Your task to perform on an android device: How do I get to the nearest Sprint Store? Image 0: 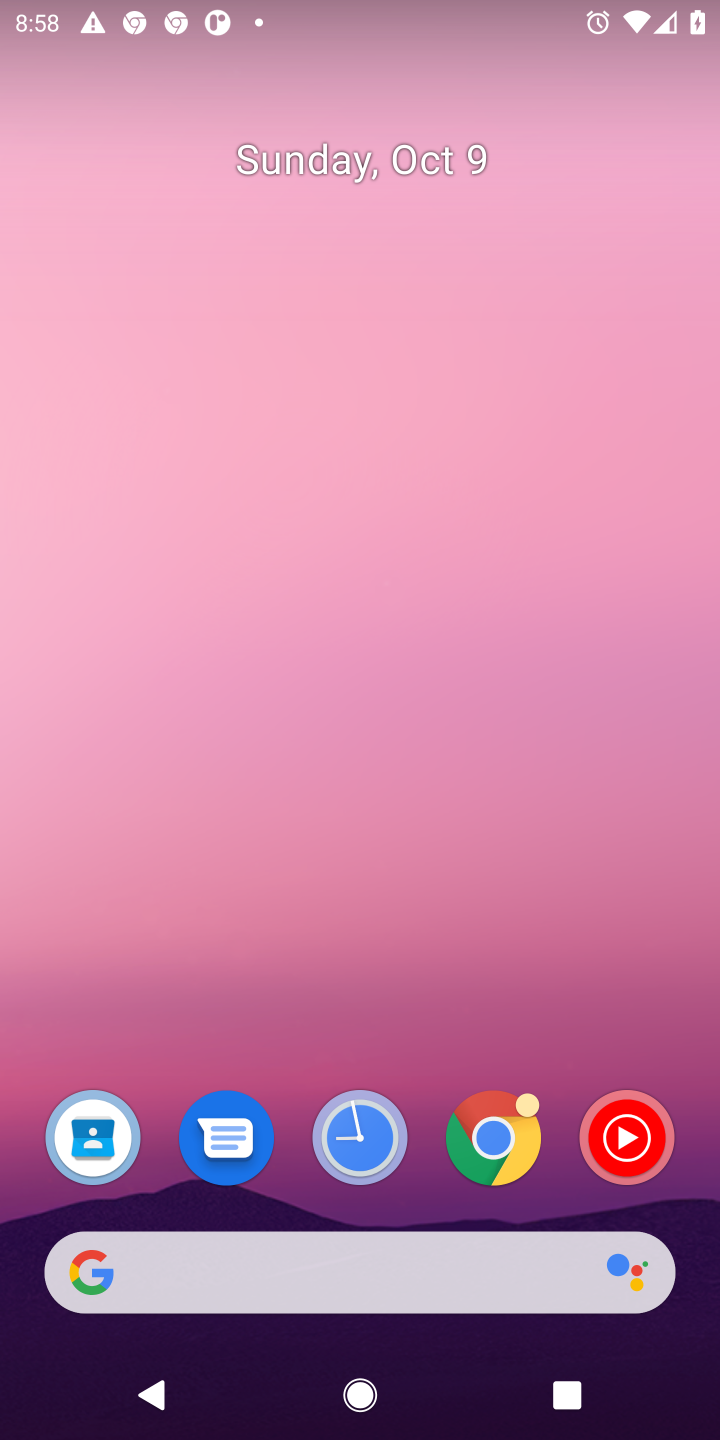
Step 0: drag from (425, 1183) to (433, 305)
Your task to perform on an android device: How do I get to the nearest Sprint Store? Image 1: 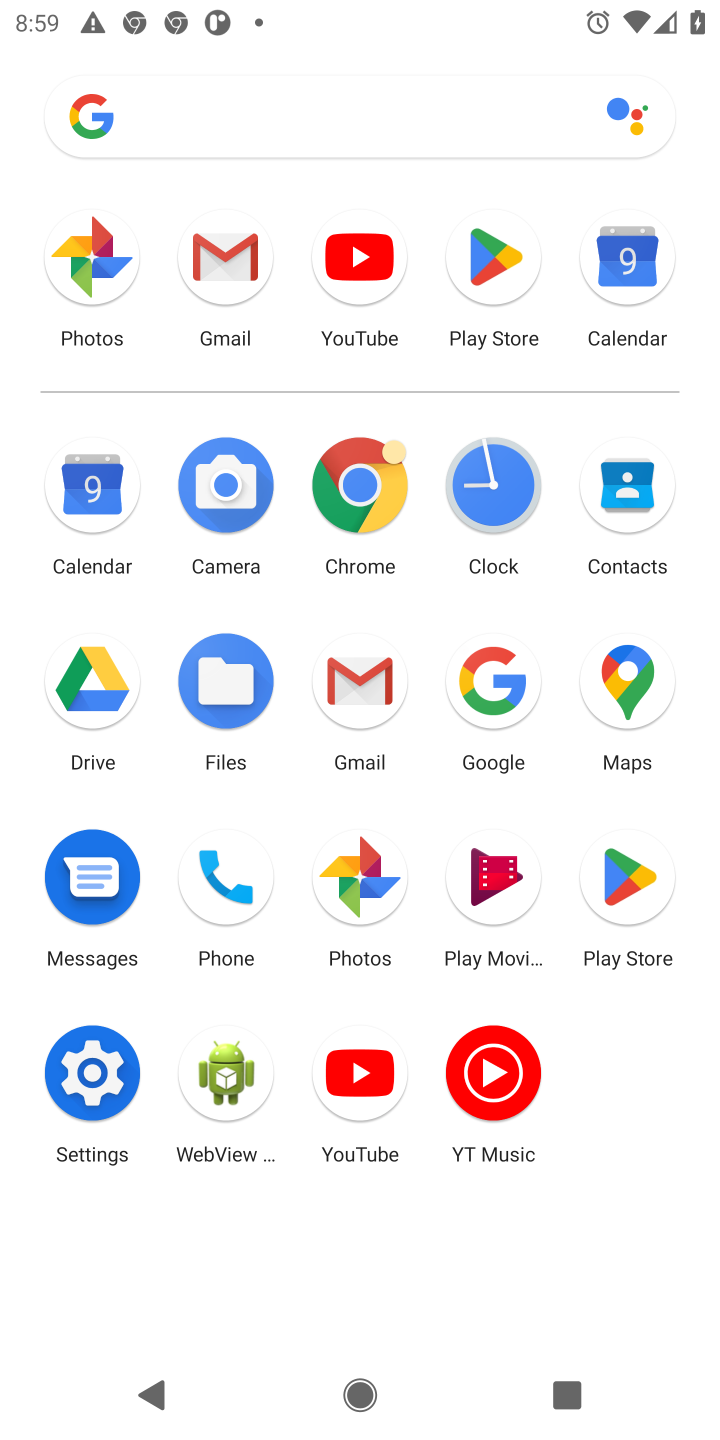
Step 1: click (484, 667)
Your task to perform on an android device: How do I get to the nearest Sprint Store? Image 2: 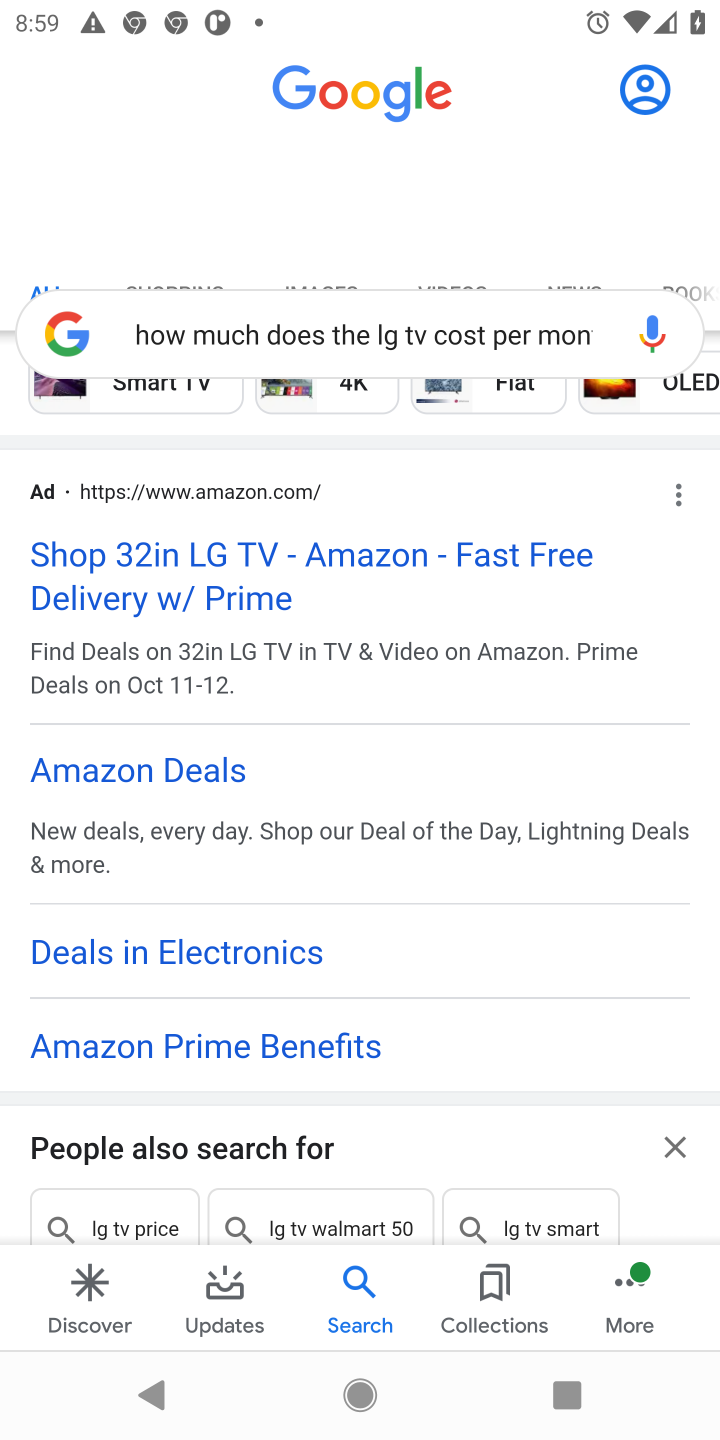
Step 2: click (513, 317)
Your task to perform on an android device: How do I get to the nearest Sprint Store? Image 3: 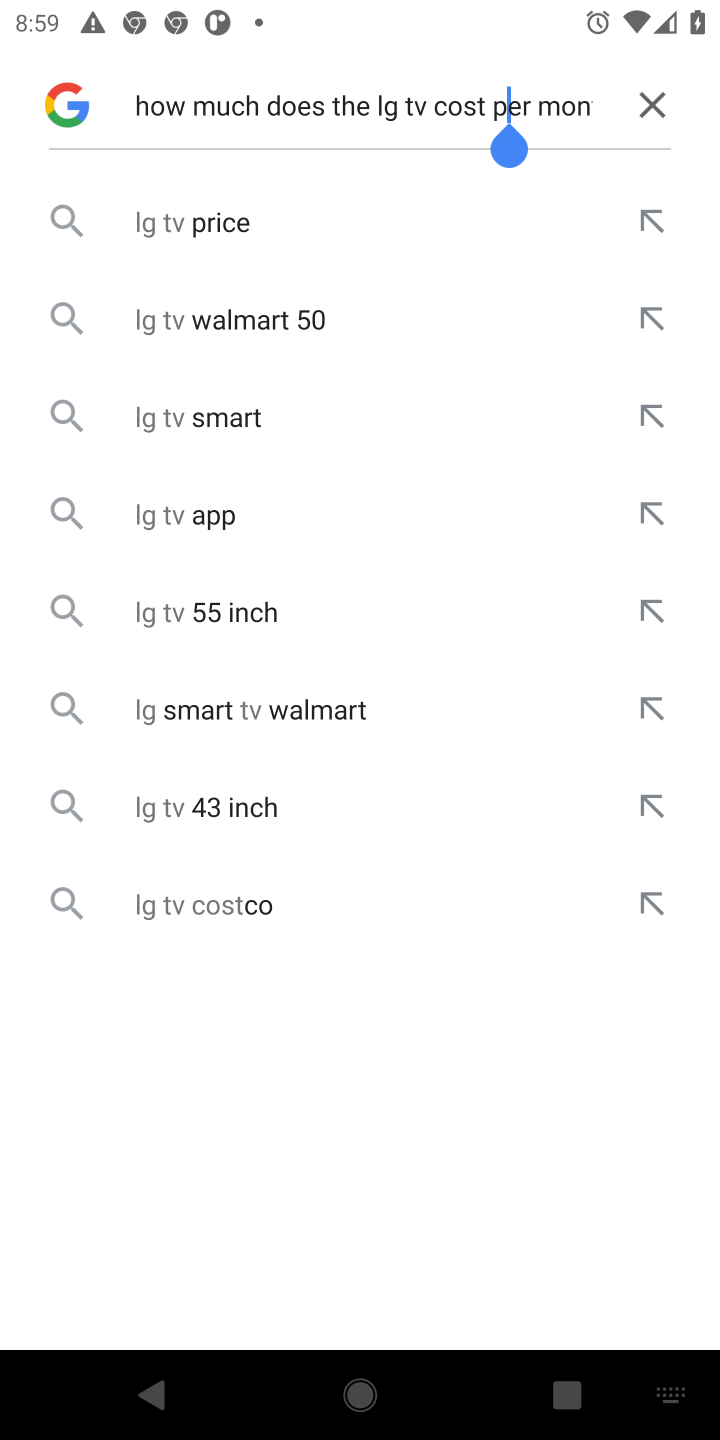
Step 3: click (652, 99)
Your task to perform on an android device: How do I get to the nearest Sprint Store? Image 4: 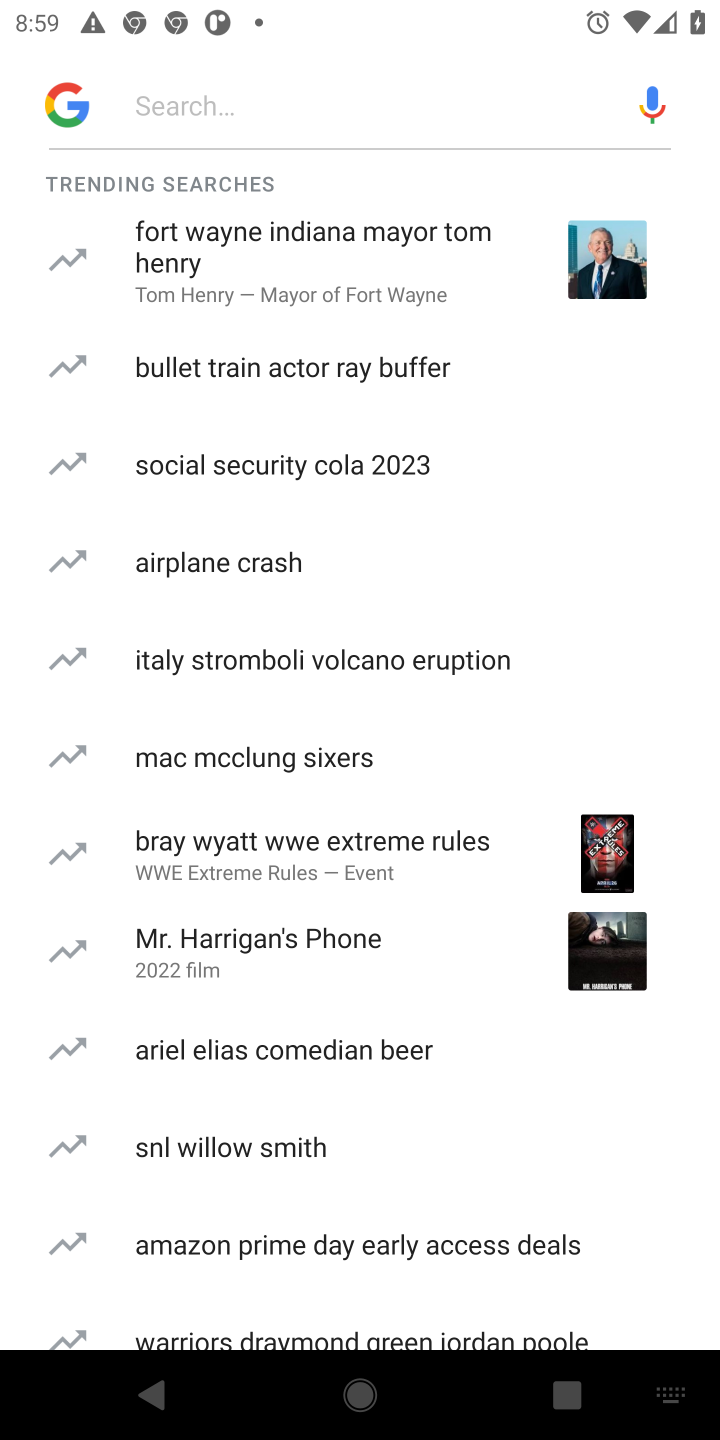
Step 4: click (258, 92)
Your task to perform on an android device: How do I get to the nearest Sprint Store? Image 5: 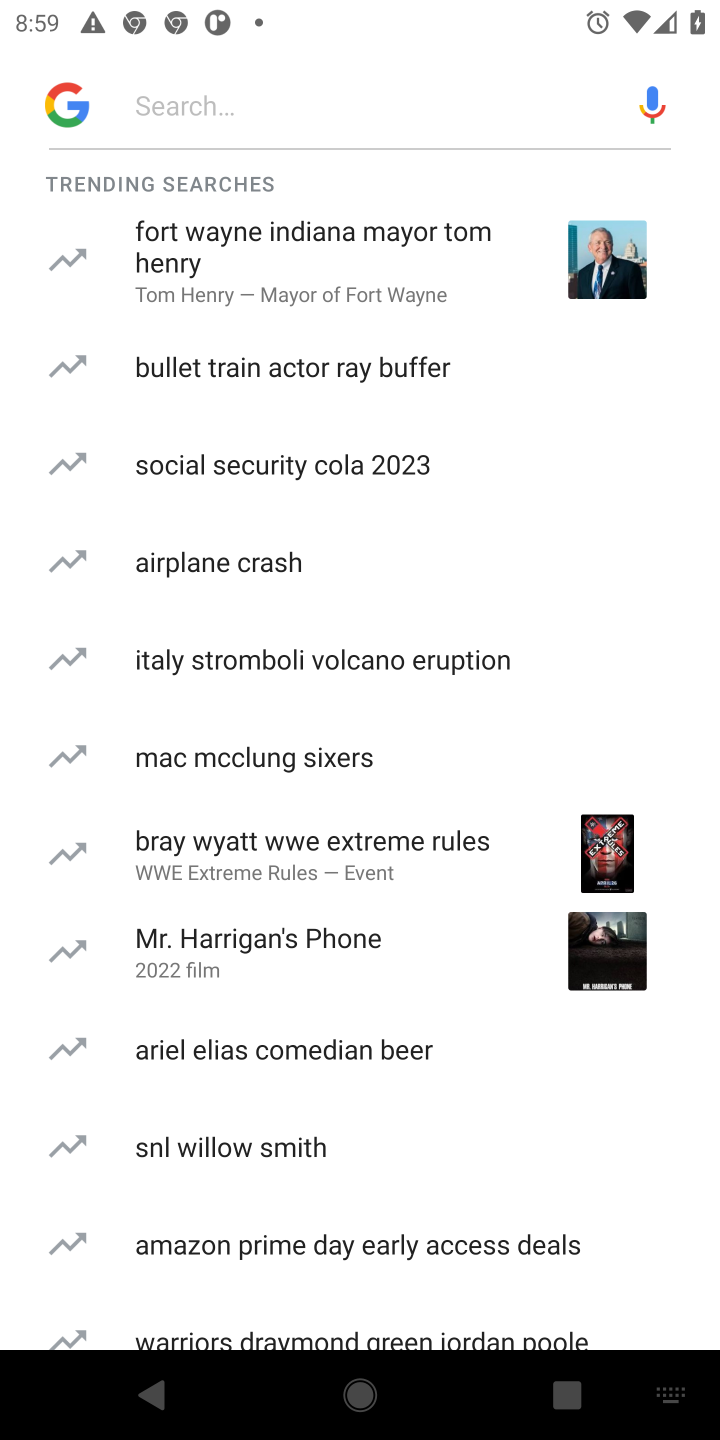
Step 5: type "How do I get to the nearest Sprint Store? "
Your task to perform on an android device: How do I get to the nearest Sprint Store? Image 6: 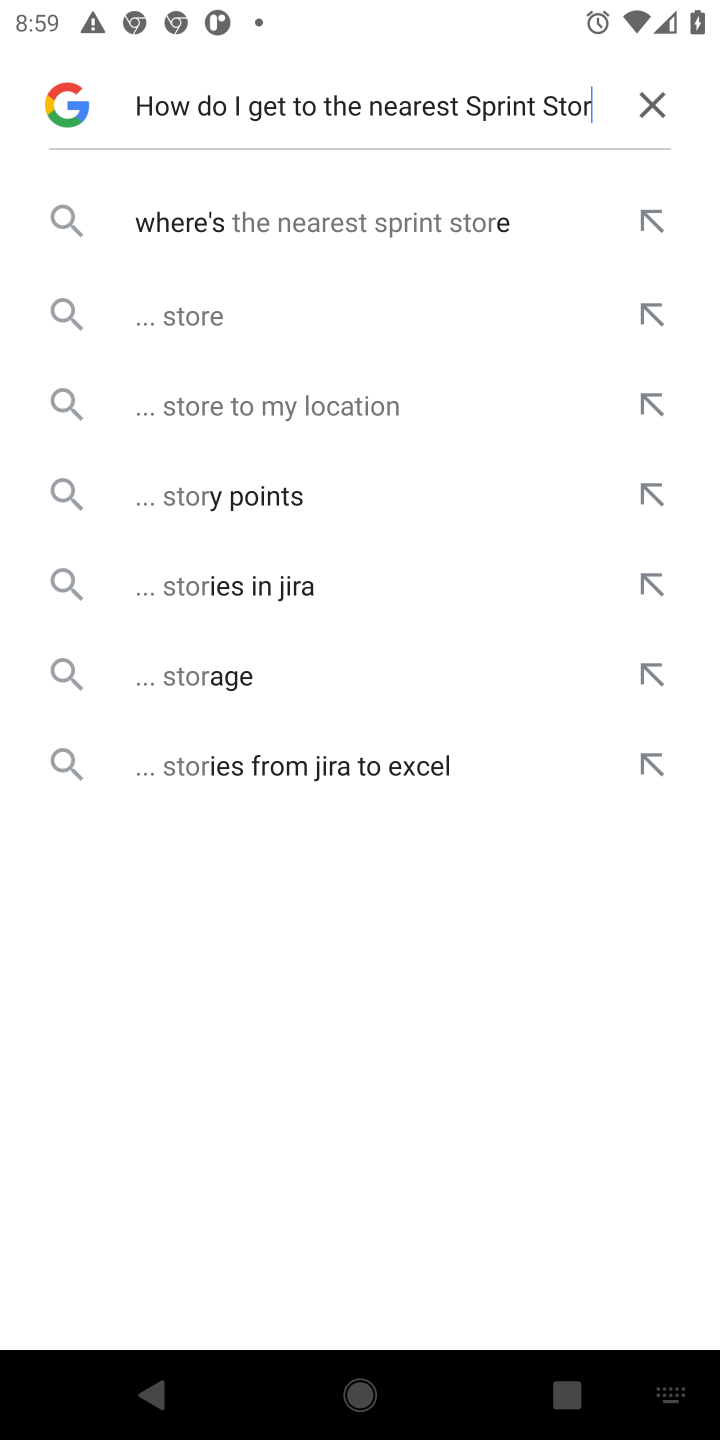
Step 6: click (317, 222)
Your task to perform on an android device: How do I get to the nearest Sprint Store? Image 7: 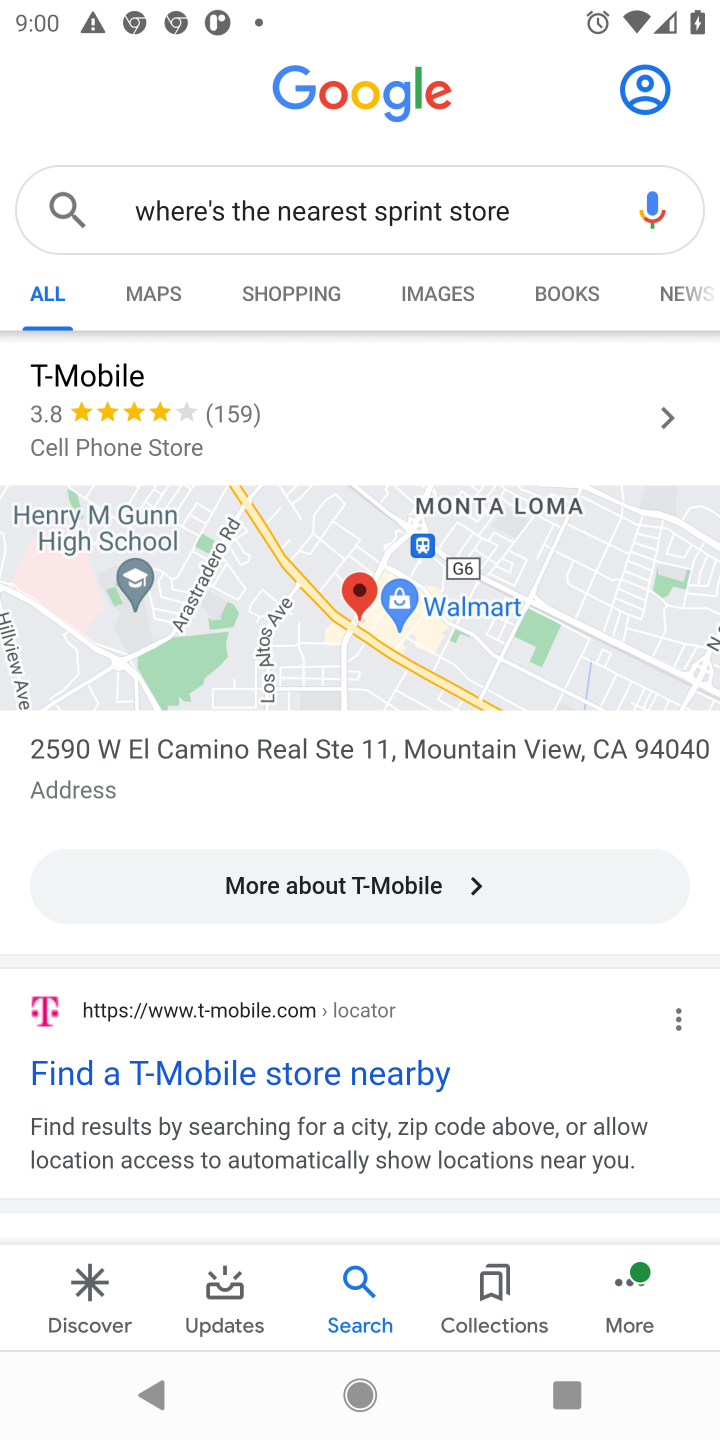
Step 7: drag from (425, 1069) to (451, 401)
Your task to perform on an android device: How do I get to the nearest Sprint Store? Image 8: 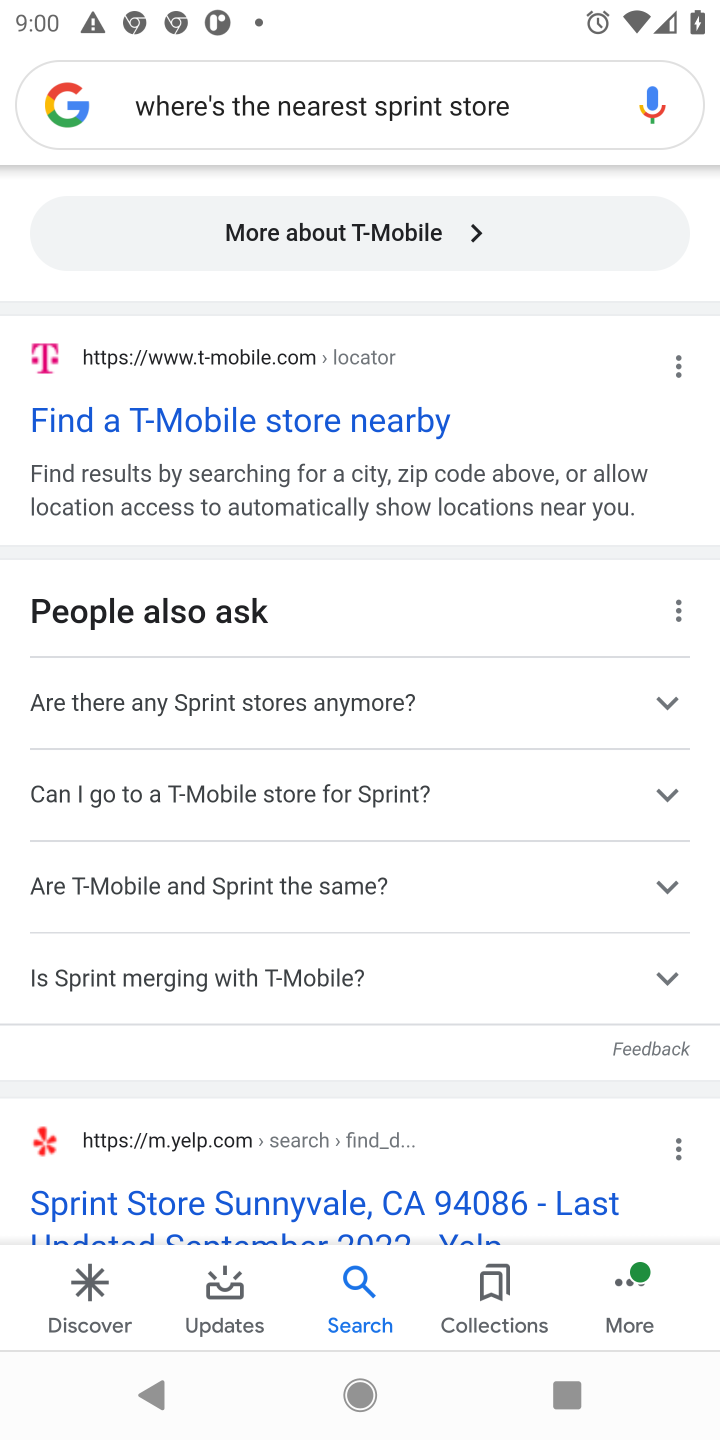
Step 8: drag from (467, 365) to (475, 1142)
Your task to perform on an android device: How do I get to the nearest Sprint Store? Image 9: 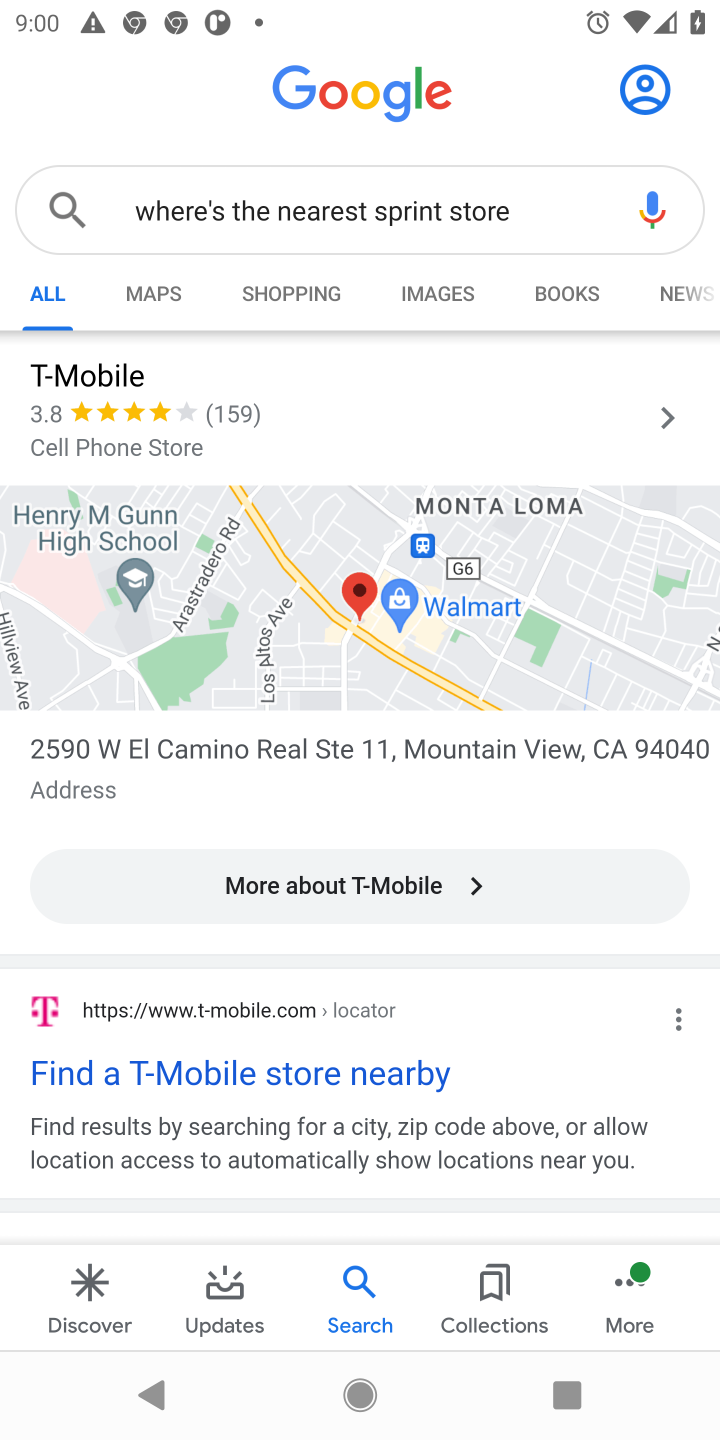
Step 9: click (469, 636)
Your task to perform on an android device: How do I get to the nearest Sprint Store? Image 10: 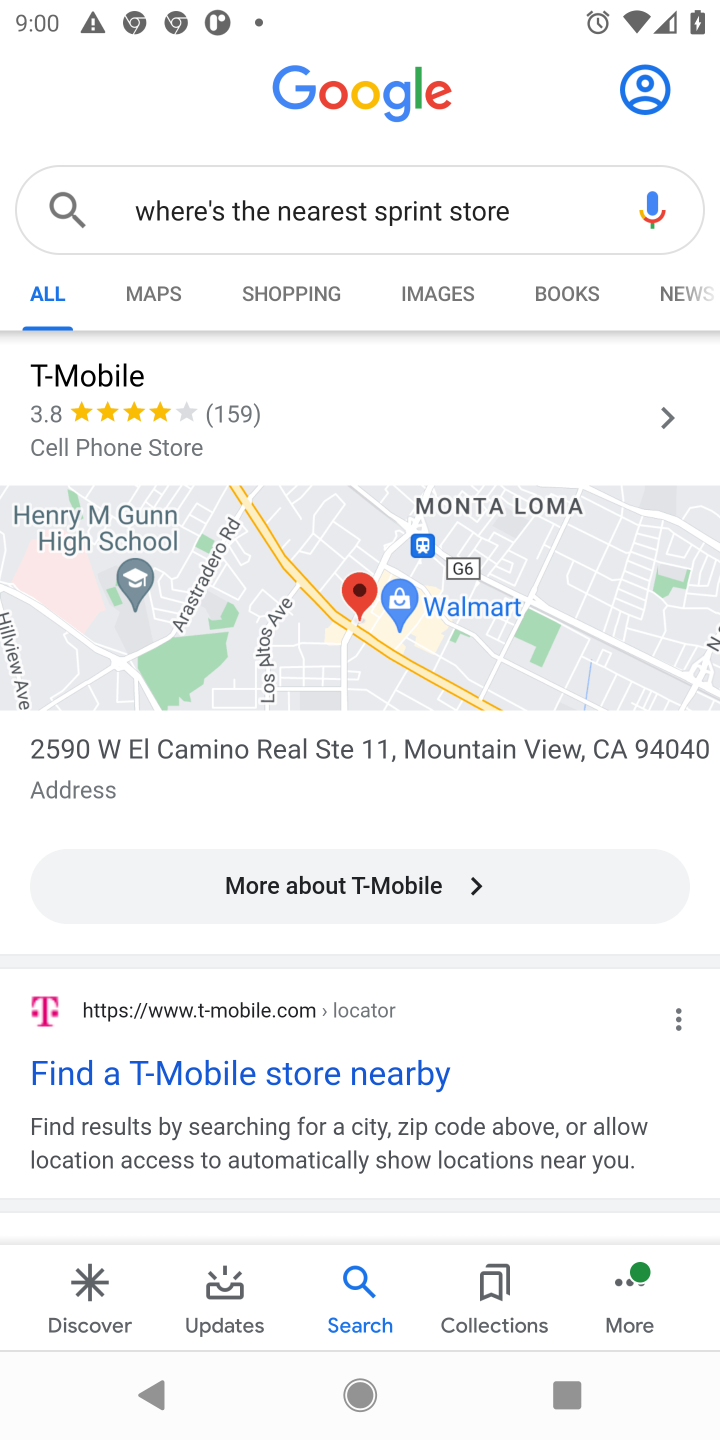
Step 10: task complete